Your task to perform on an android device: Search for Mexican restaurants on Maps Image 0: 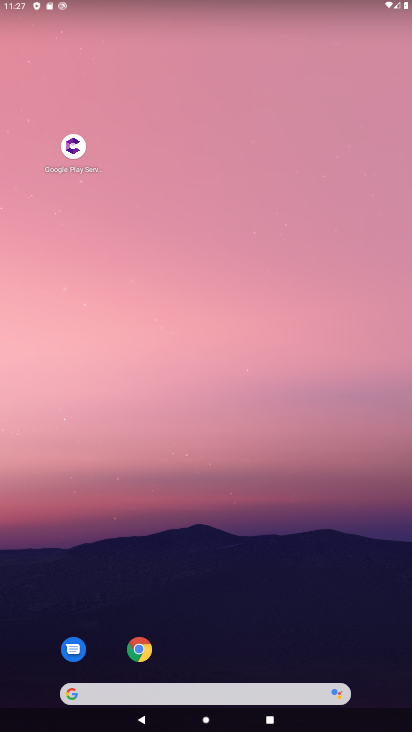
Step 0: drag from (194, 255) to (202, 211)
Your task to perform on an android device: Search for Mexican restaurants on Maps Image 1: 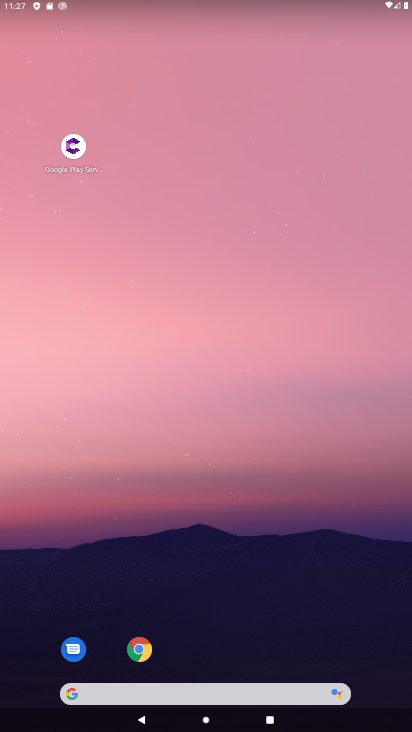
Step 1: drag from (137, 491) to (394, 14)
Your task to perform on an android device: Search for Mexican restaurants on Maps Image 2: 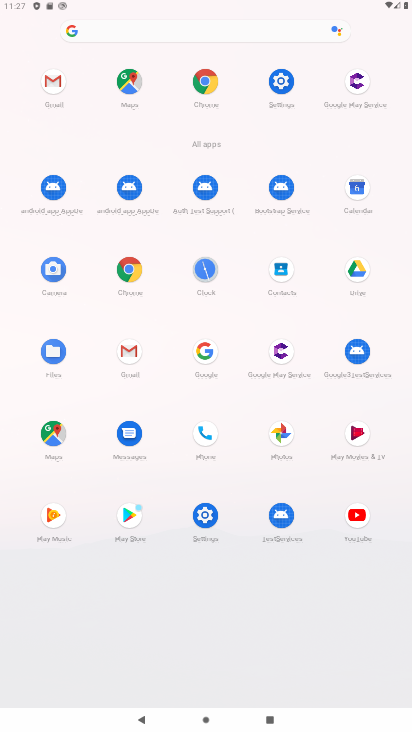
Step 2: click (42, 427)
Your task to perform on an android device: Search for Mexican restaurants on Maps Image 3: 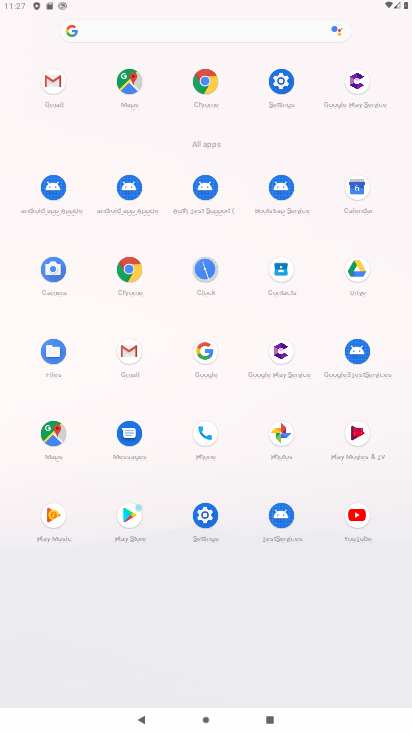
Step 3: click (42, 427)
Your task to perform on an android device: Search for Mexican restaurants on Maps Image 4: 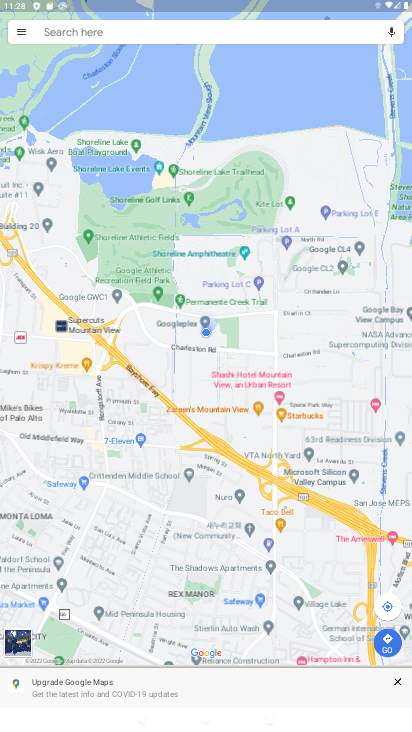
Step 4: type "Mexican restaurants"
Your task to perform on an android device: Search for Mexican restaurants on Maps Image 5: 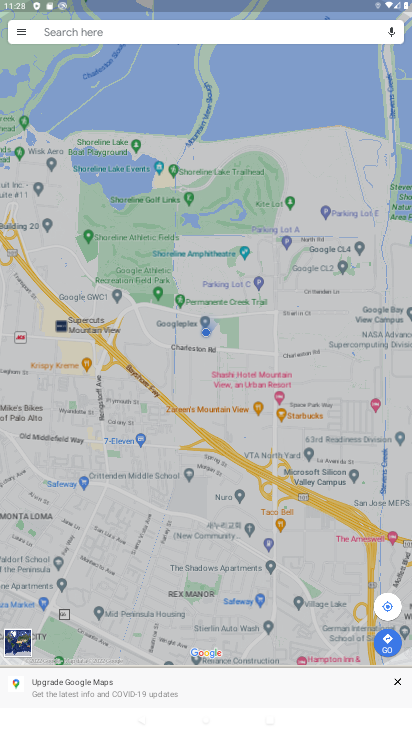
Step 5: type ""
Your task to perform on an android device: Search for Mexican restaurants on Maps Image 6: 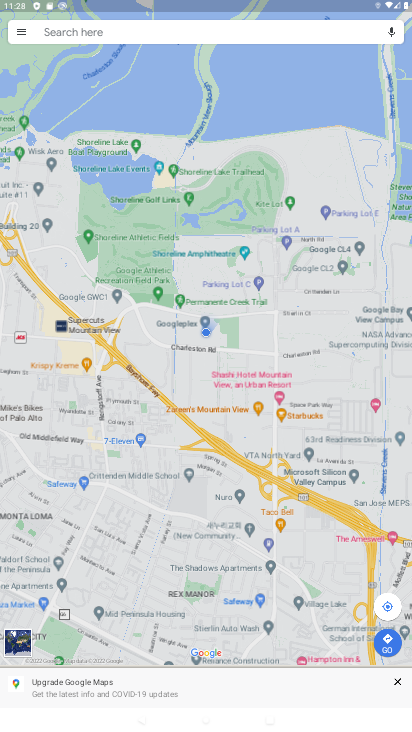
Step 6: click (72, 24)
Your task to perform on an android device: Search for Mexican restaurants on Maps Image 7: 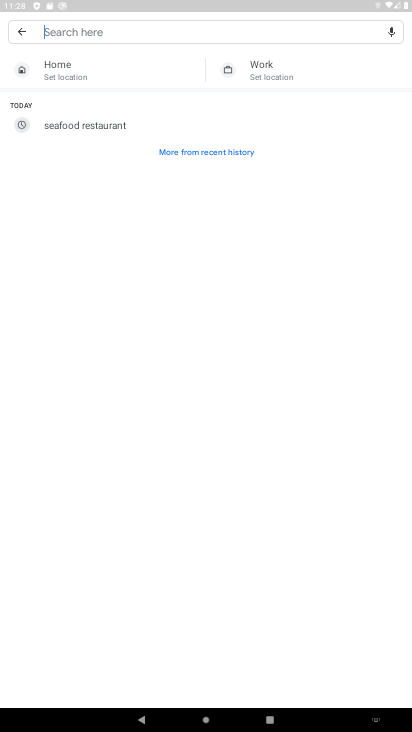
Step 7: type "Mexican restaurants"
Your task to perform on an android device: Search for Mexican restaurants on Maps Image 8: 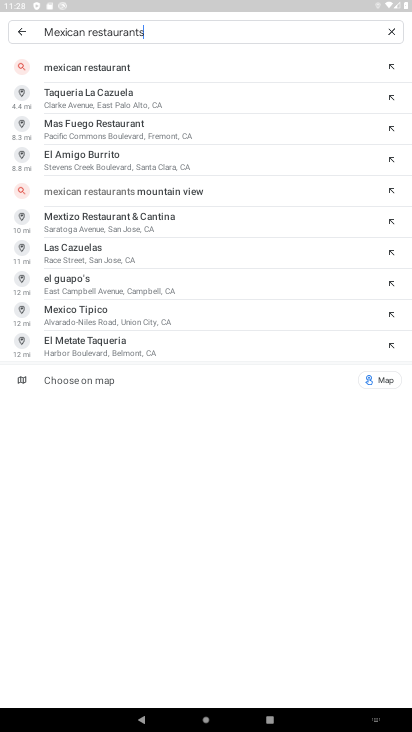
Step 8: click (130, 70)
Your task to perform on an android device: Search for Mexican restaurants on Maps Image 9: 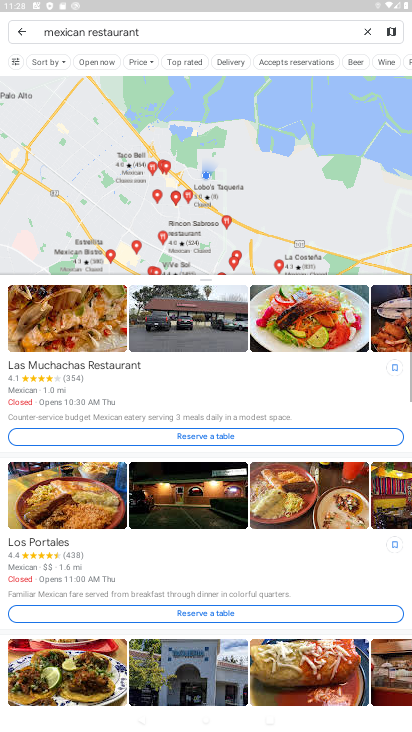
Step 9: task complete